Your task to perform on an android device: Open Youtube and go to "Your channel" Image 0: 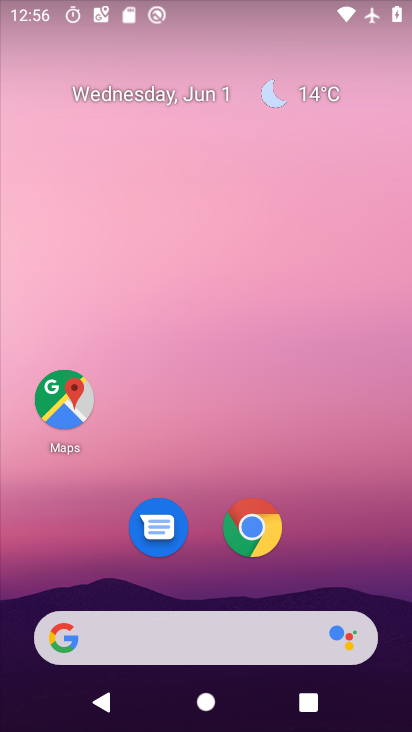
Step 0: drag from (381, 589) to (408, 684)
Your task to perform on an android device: Open Youtube and go to "Your channel" Image 1: 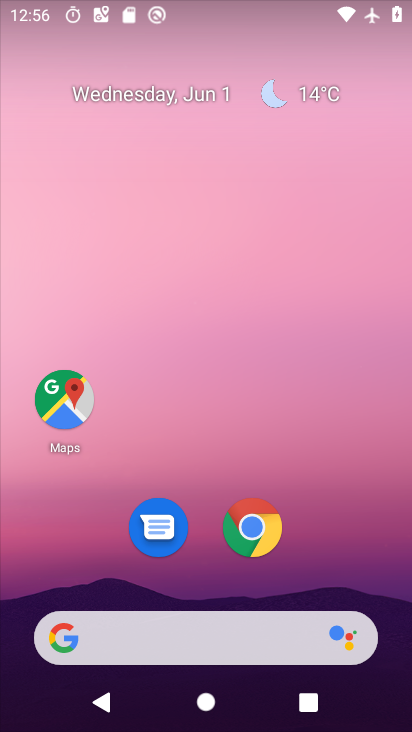
Step 1: drag from (368, 589) to (345, 5)
Your task to perform on an android device: Open Youtube and go to "Your channel" Image 2: 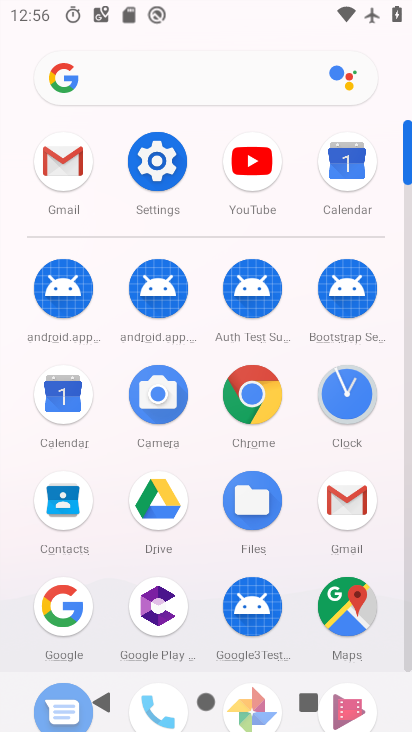
Step 2: click (247, 170)
Your task to perform on an android device: Open Youtube and go to "Your channel" Image 3: 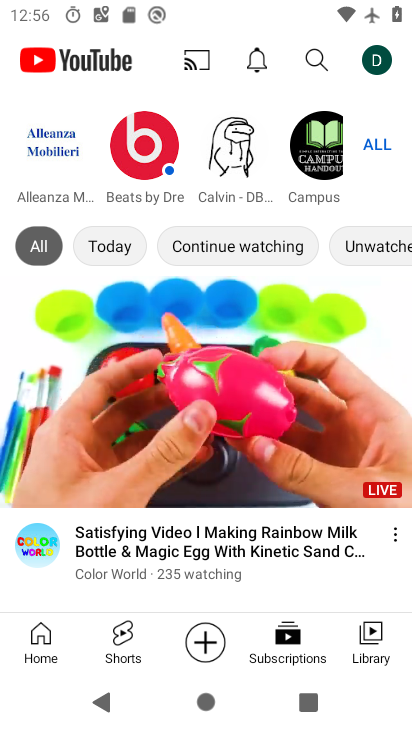
Step 3: click (376, 60)
Your task to perform on an android device: Open Youtube and go to "Your channel" Image 4: 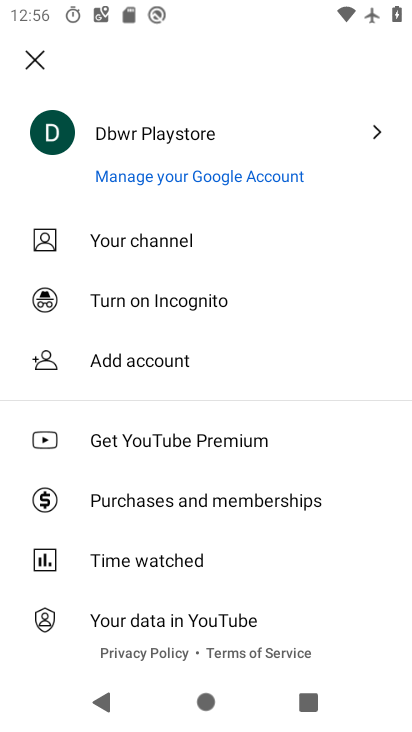
Step 4: click (164, 242)
Your task to perform on an android device: Open Youtube and go to "Your channel" Image 5: 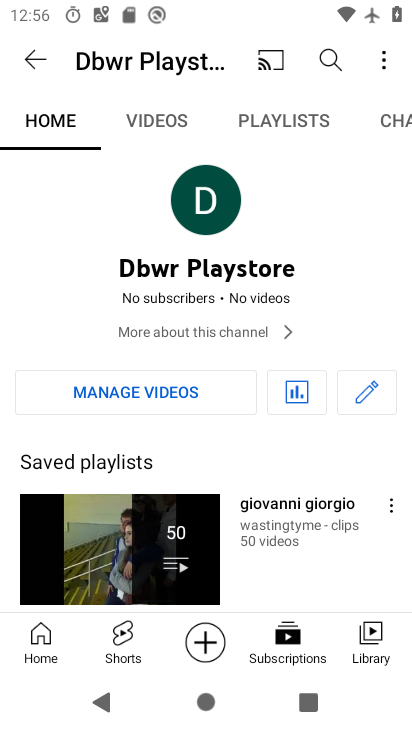
Step 5: task complete